Your task to perform on an android device: Go to CNN.com Image 0: 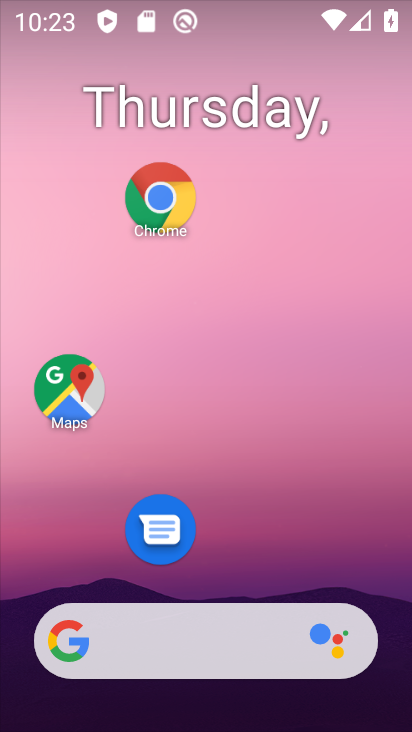
Step 0: click (215, 644)
Your task to perform on an android device: Go to CNN.com Image 1: 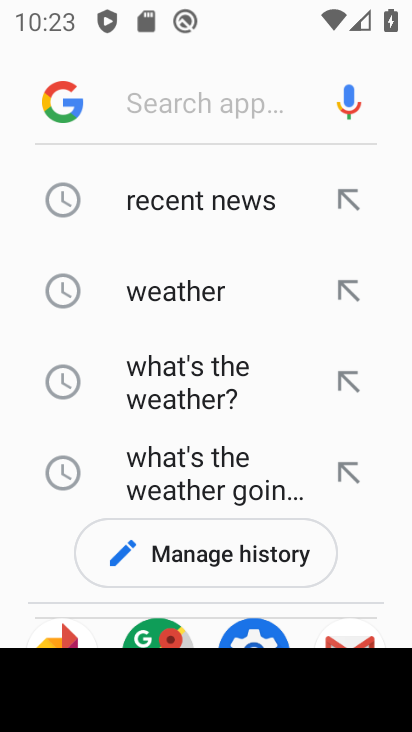
Step 1: type "cnn.com"
Your task to perform on an android device: Go to CNN.com Image 2: 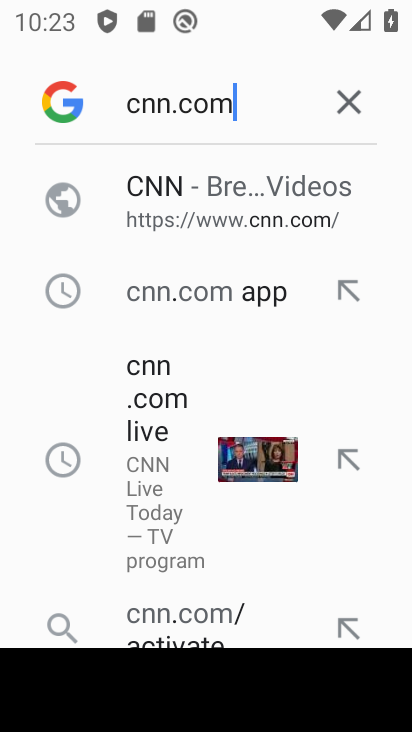
Step 2: click (187, 184)
Your task to perform on an android device: Go to CNN.com Image 3: 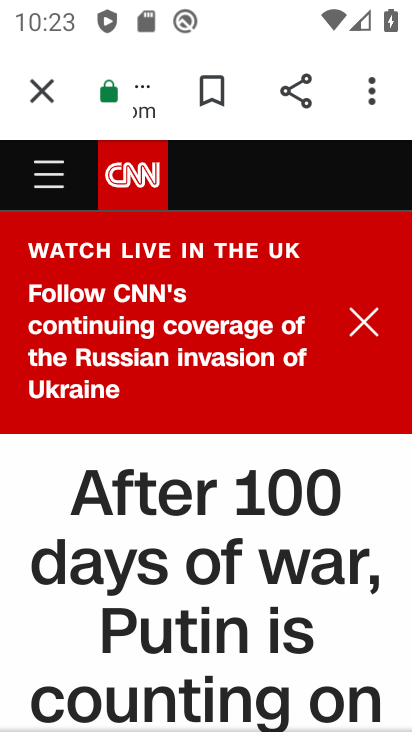
Step 3: task complete